Your task to perform on an android device: Is it going to rain tomorrow? Image 0: 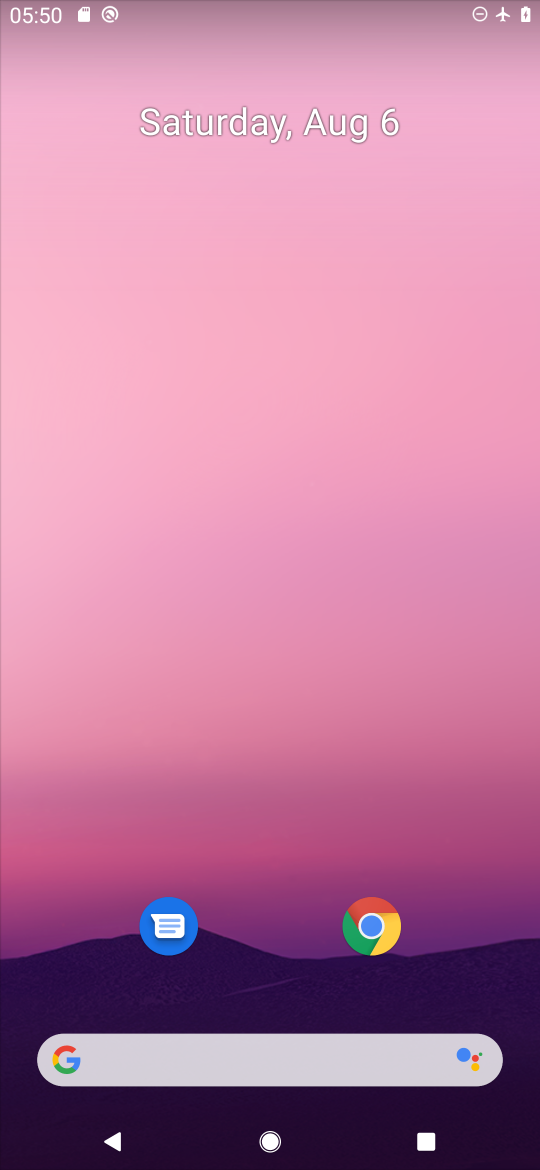
Step 0: drag from (256, 995) to (242, 380)
Your task to perform on an android device: Is it going to rain tomorrow? Image 1: 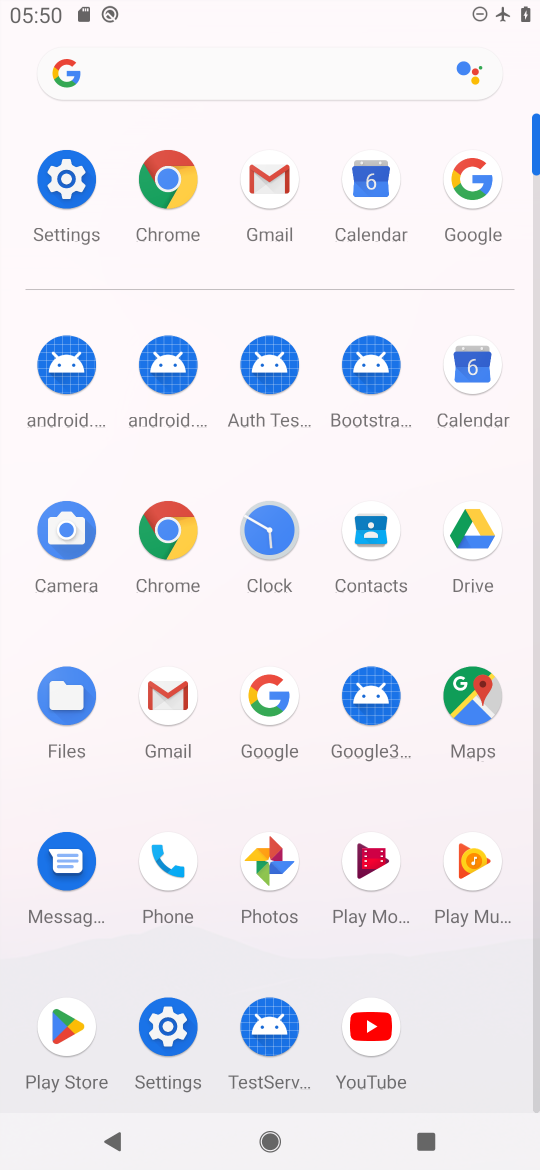
Step 1: click (460, 217)
Your task to perform on an android device: Is it going to rain tomorrow? Image 2: 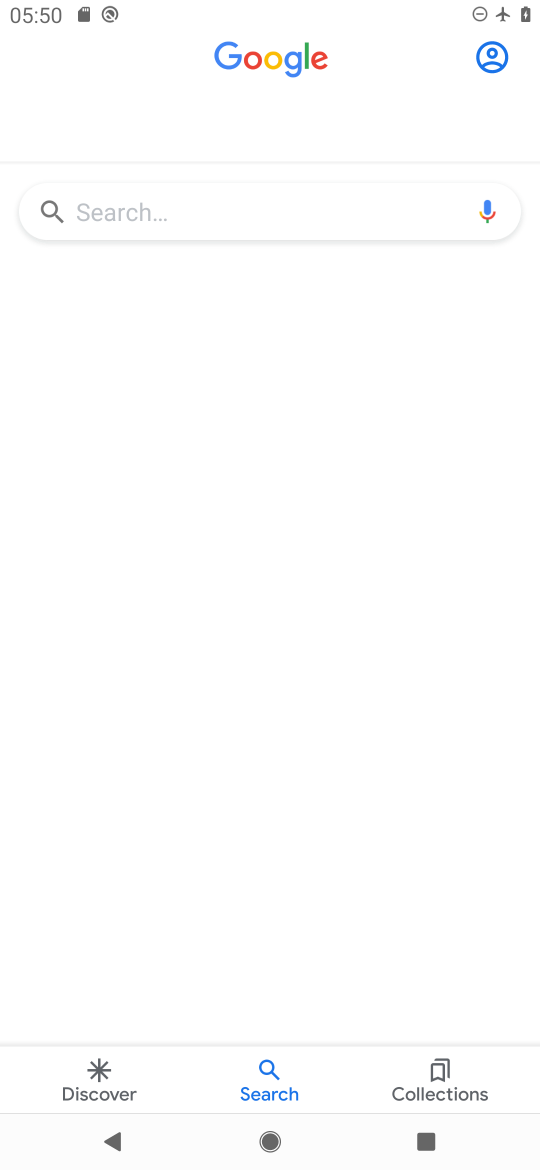
Step 2: click (137, 226)
Your task to perform on an android device: Is it going to rain tomorrow? Image 3: 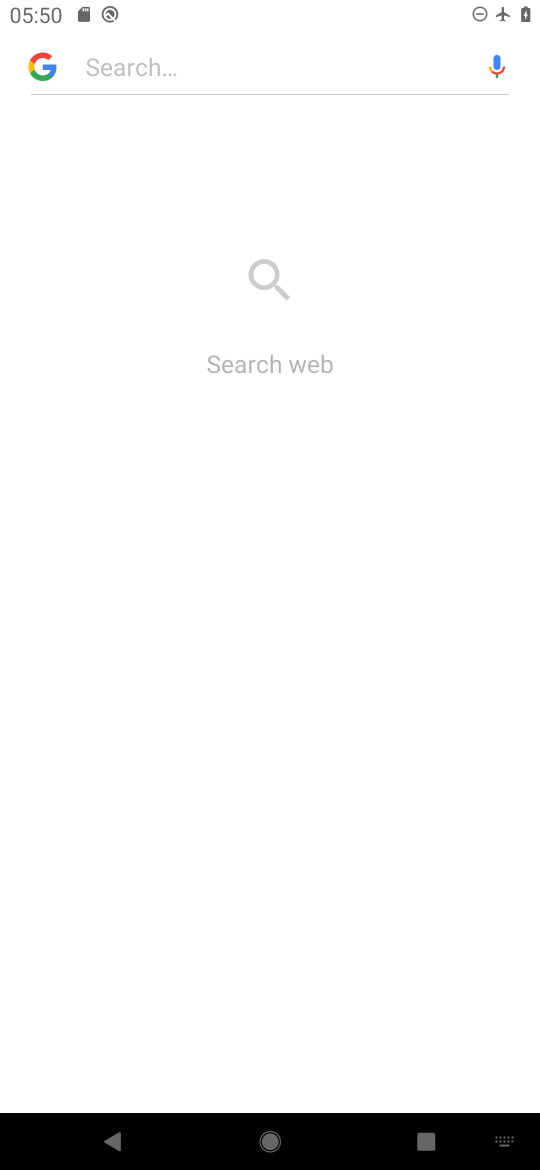
Step 3: click (145, 75)
Your task to perform on an android device: Is it going to rain tomorrow? Image 4: 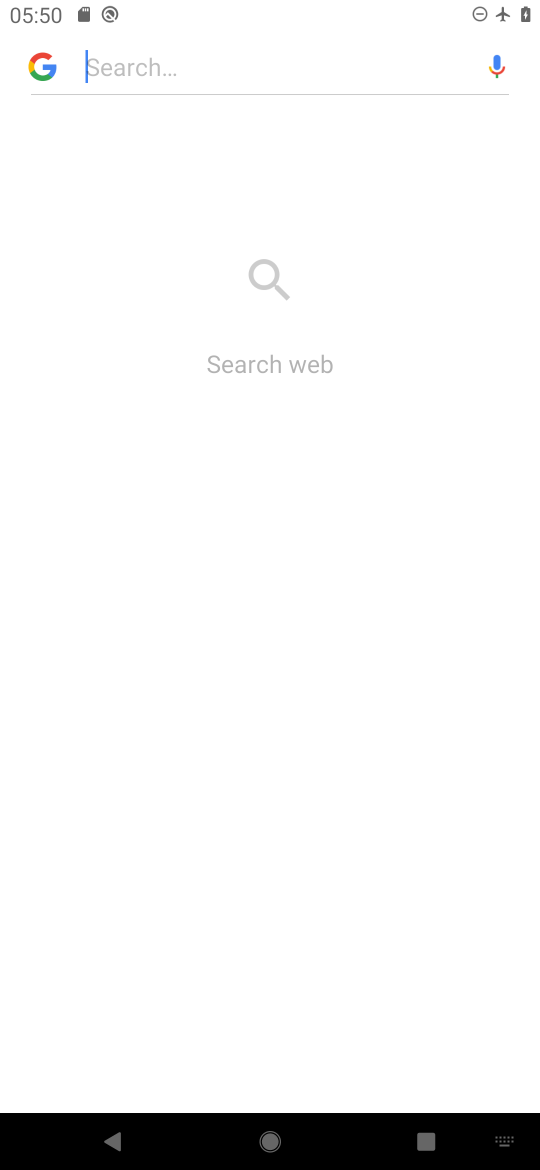
Step 4: type "weather"
Your task to perform on an android device: Is it going to rain tomorrow? Image 5: 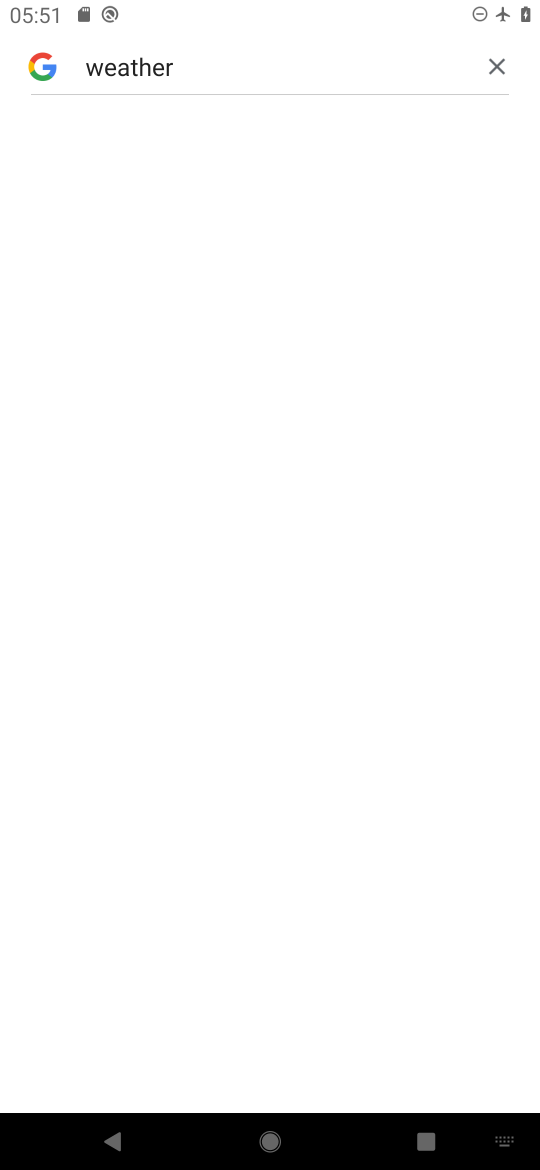
Step 5: task complete